Your task to perform on an android device: Check the news Image 0: 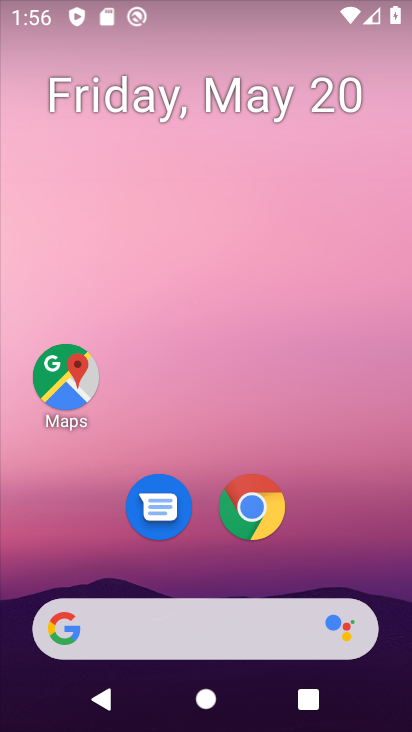
Step 0: click (208, 646)
Your task to perform on an android device: Check the news Image 1: 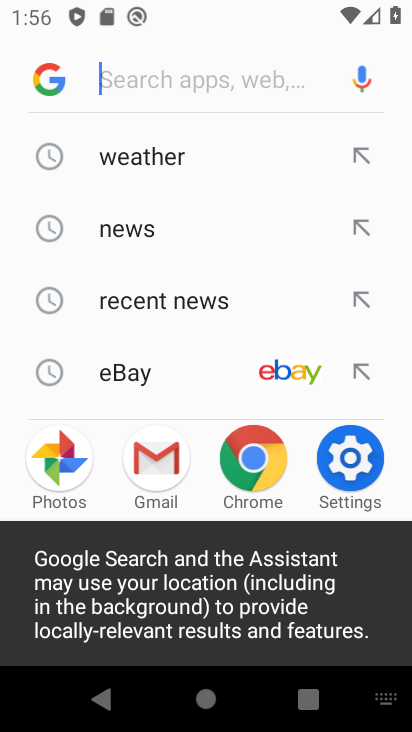
Step 1: click (140, 239)
Your task to perform on an android device: Check the news Image 2: 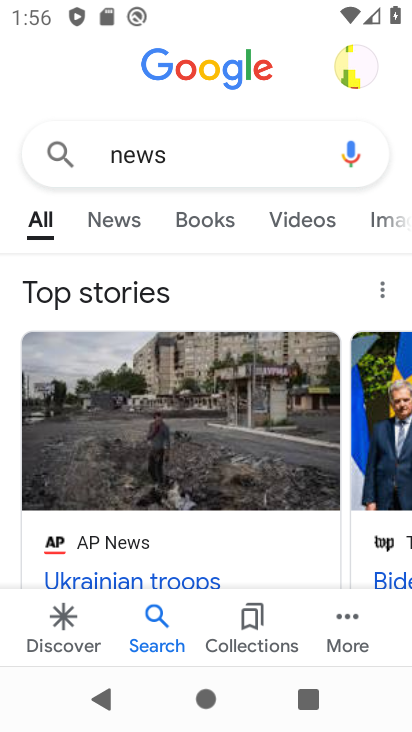
Step 2: task complete